Your task to perform on an android device: change alarm snooze length Image 0: 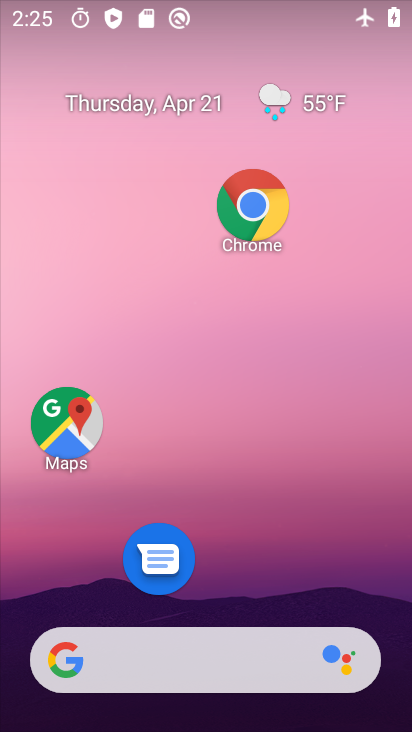
Step 0: drag from (222, 612) to (185, 73)
Your task to perform on an android device: change alarm snooze length Image 1: 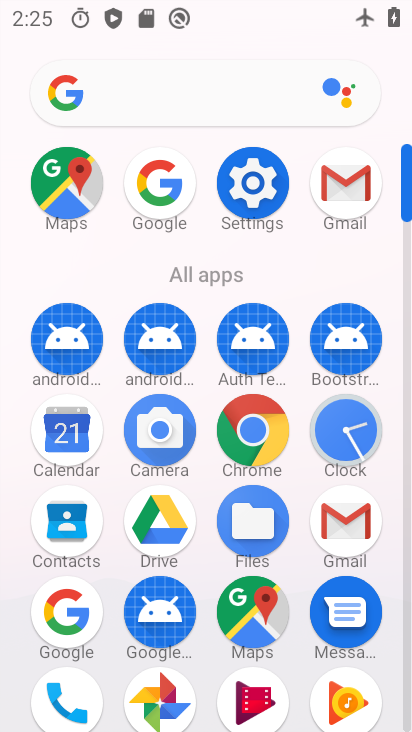
Step 1: click (349, 461)
Your task to perform on an android device: change alarm snooze length Image 2: 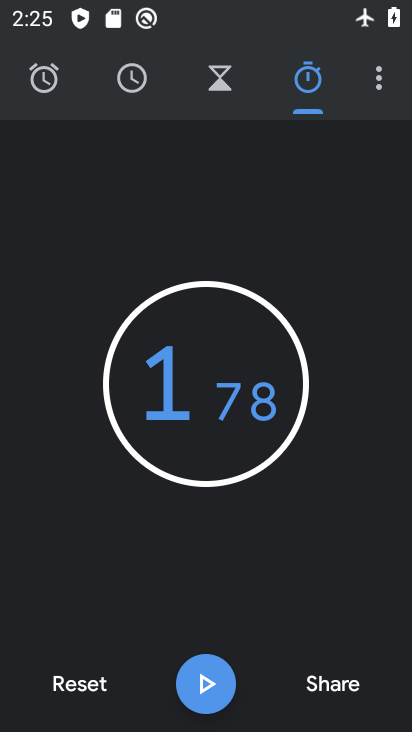
Step 2: click (372, 82)
Your task to perform on an android device: change alarm snooze length Image 3: 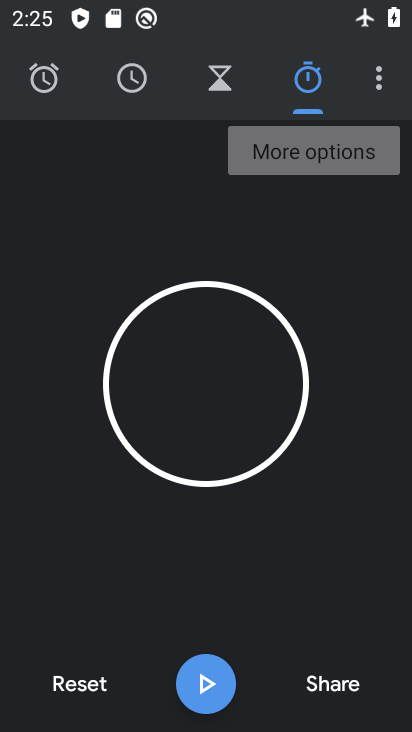
Step 3: click (342, 153)
Your task to perform on an android device: change alarm snooze length Image 4: 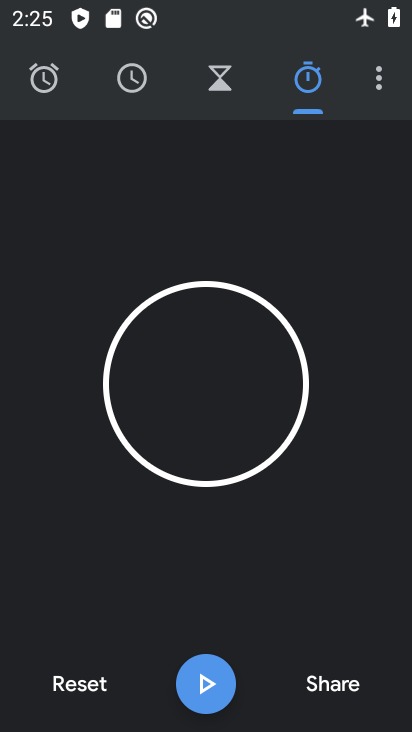
Step 4: click (377, 97)
Your task to perform on an android device: change alarm snooze length Image 5: 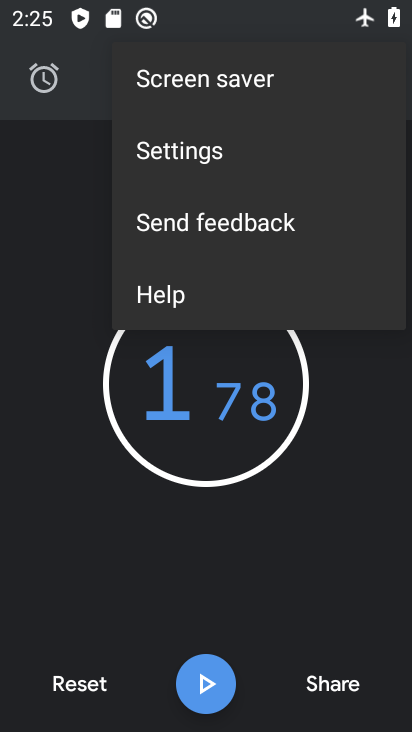
Step 5: click (250, 169)
Your task to perform on an android device: change alarm snooze length Image 6: 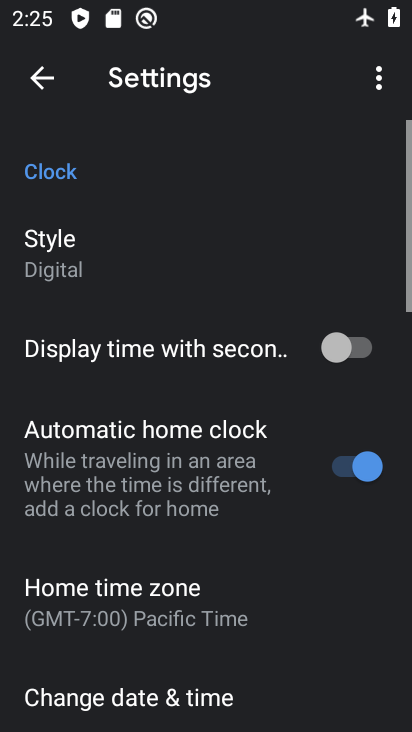
Step 6: drag from (211, 510) to (194, 54)
Your task to perform on an android device: change alarm snooze length Image 7: 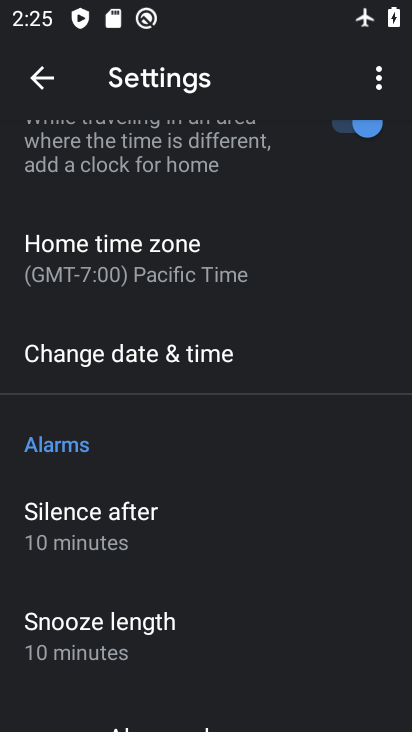
Step 7: click (146, 642)
Your task to perform on an android device: change alarm snooze length Image 8: 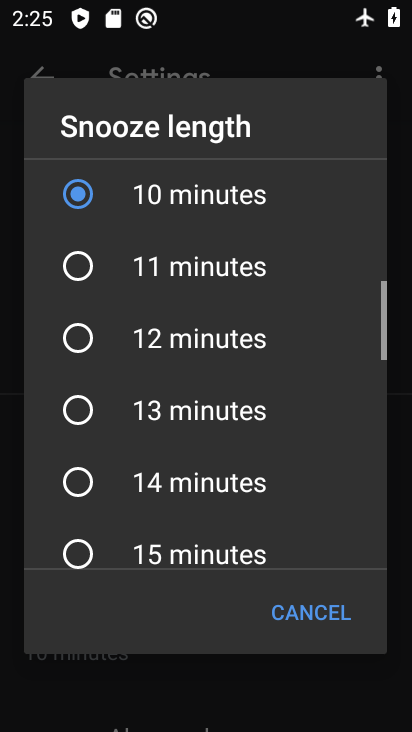
Step 8: click (121, 261)
Your task to perform on an android device: change alarm snooze length Image 9: 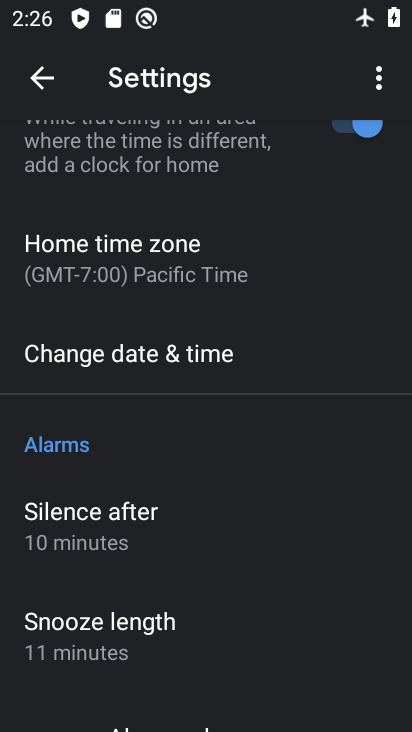
Step 9: task complete